Your task to perform on an android device: turn on wifi Image 0: 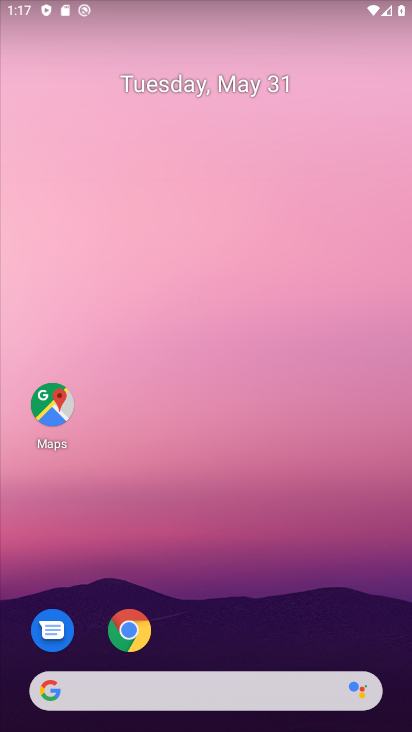
Step 0: drag from (271, 605) to (177, 42)
Your task to perform on an android device: turn on wifi Image 1: 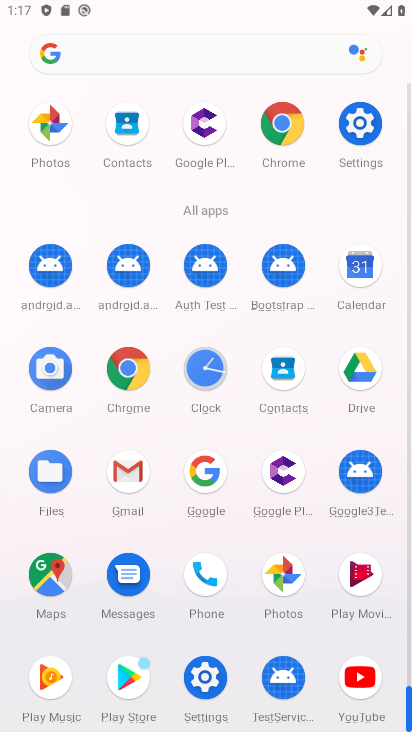
Step 1: drag from (5, 551) to (22, 219)
Your task to perform on an android device: turn on wifi Image 2: 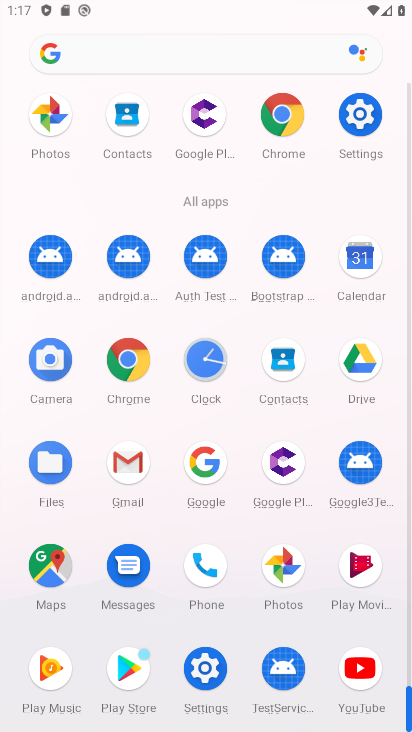
Step 2: click (204, 667)
Your task to perform on an android device: turn on wifi Image 3: 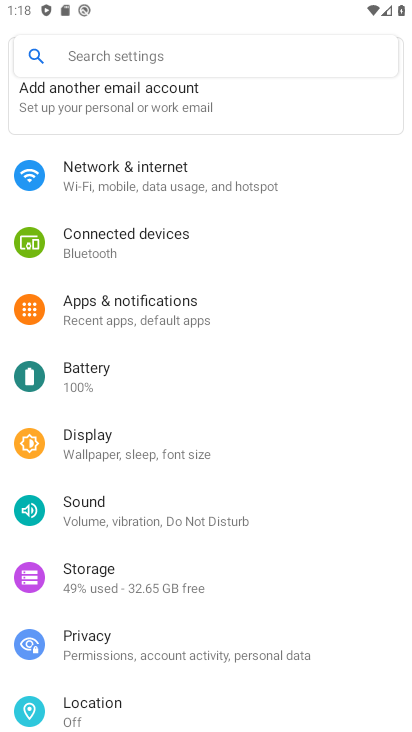
Step 3: click (176, 181)
Your task to perform on an android device: turn on wifi Image 4: 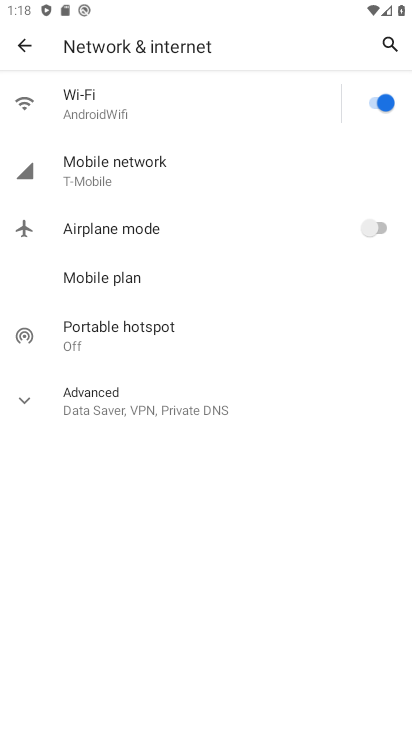
Step 4: click (24, 408)
Your task to perform on an android device: turn on wifi Image 5: 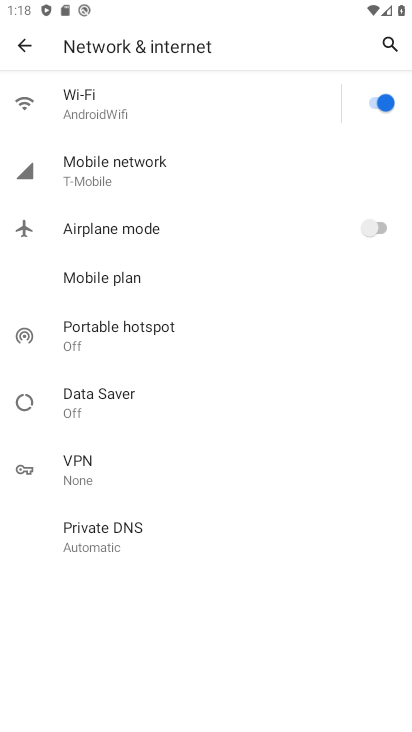
Step 5: task complete